Your task to perform on an android device: turn off location Image 0: 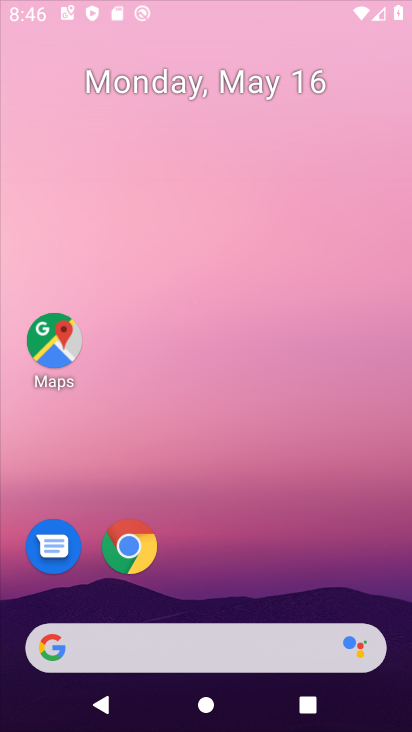
Step 0: press home button
Your task to perform on an android device: turn off location Image 1: 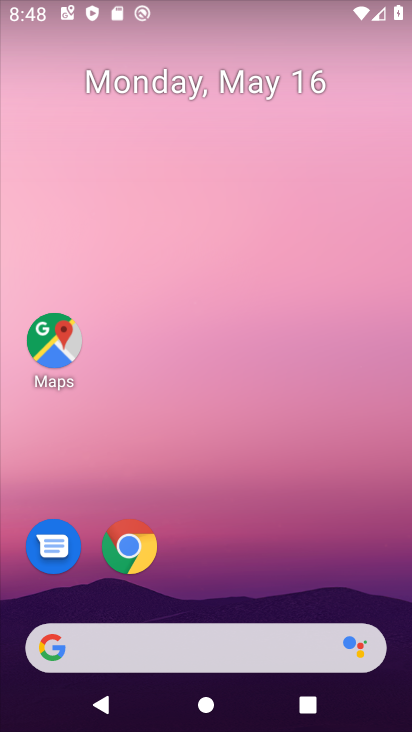
Step 1: drag from (261, 674) to (272, 299)
Your task to perform on an android device: turn off location Image 2: 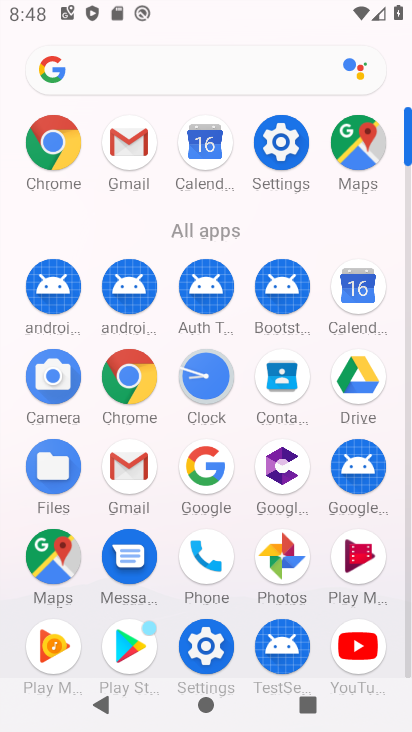
Step 2: click (276, 163)
Your task to perform on an android device: turn off location Image 3: 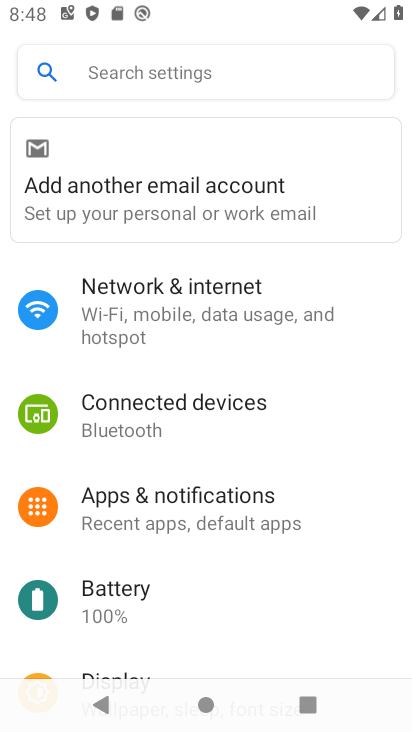
Step 3: click (245, 74)
Your task to perform on an android device: turn off location Image 4: 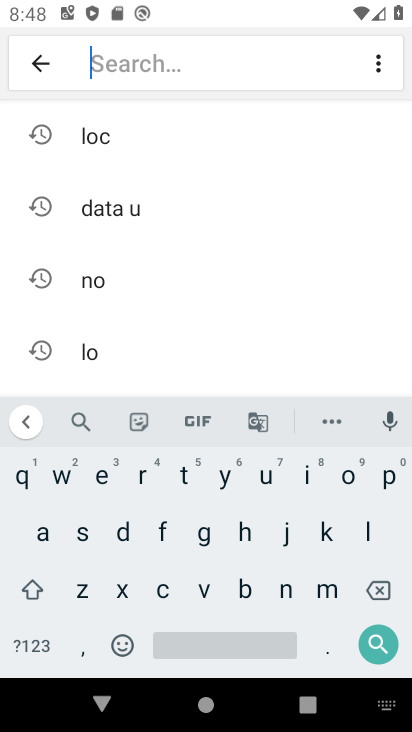
Step 4: click (159, 148)
Your task to perform on an android device: turn off location Image 5: 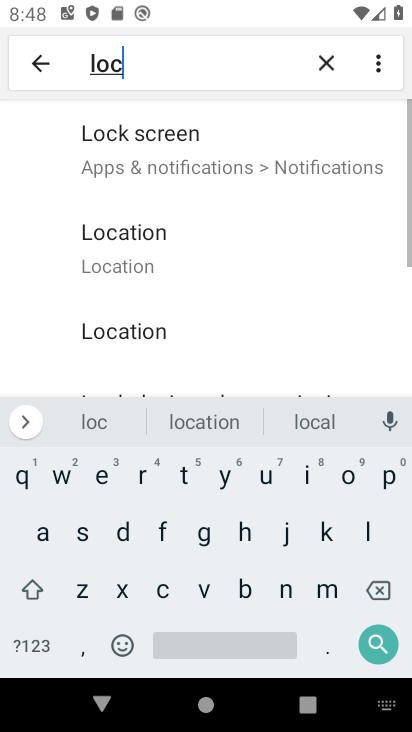
Step 5: click (119, 244)
Your task to perform on an android device: turn off location Image 6: 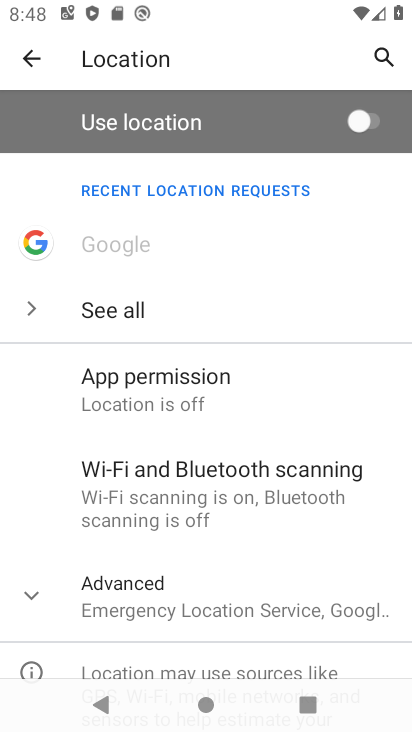
Step 6: click (370, 116)
Your task to perform on an android device: turn off location Image 7: 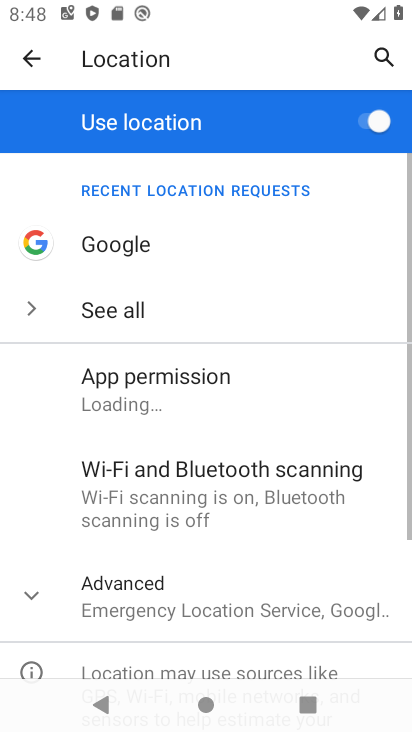
Step 7: click (355, 117)
Your task to perform on an android device: turn off location Image 8: 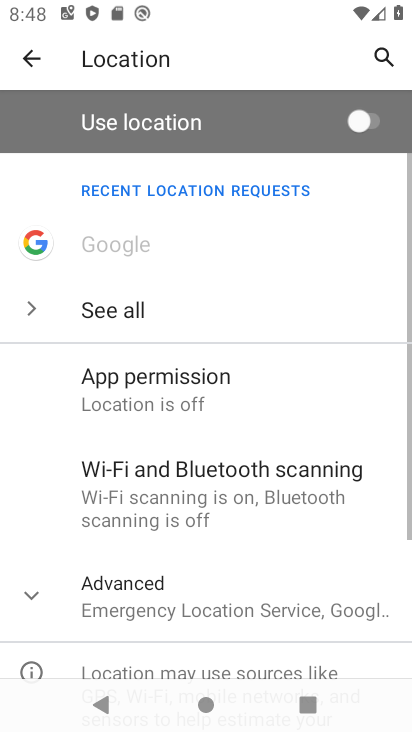
Step 8: task complete